Your task to perform on an android device: change timer sound Image 0: 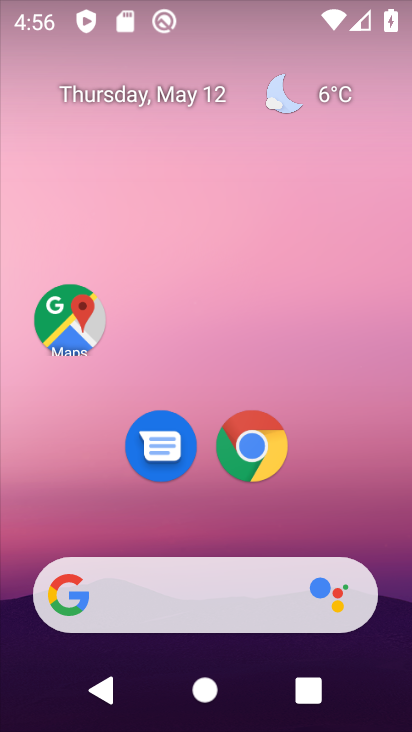
Step 0: drag from (273, 516) to (265, 104)
Your task to perform on an android device: change timer sound Image 1: 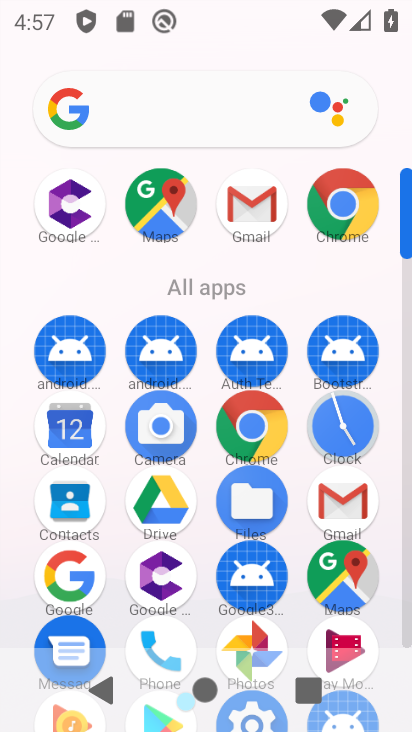
Step 1: click (333, 413)
Your task to perform on an android device: change timer sound Image 2: 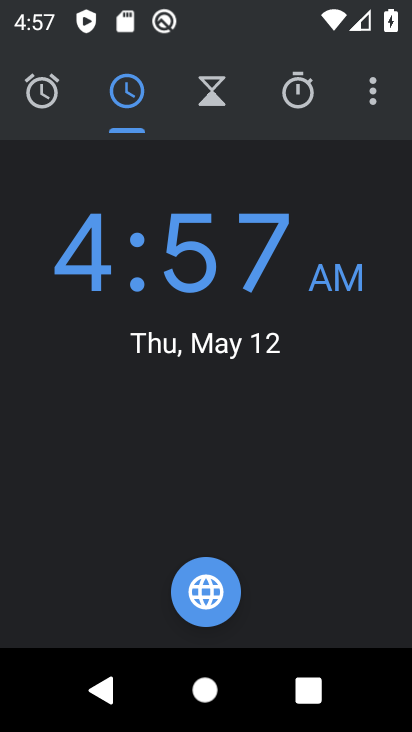
Step 2: click (369, 98)
Your task to perform on an android device: change timer sound Image 3: 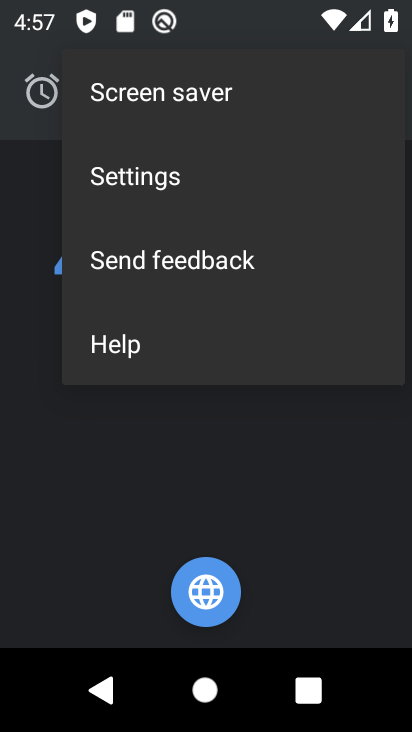
Step 3: click (164, 182)
Your task to perform on an android device: change timer sound Image 4: 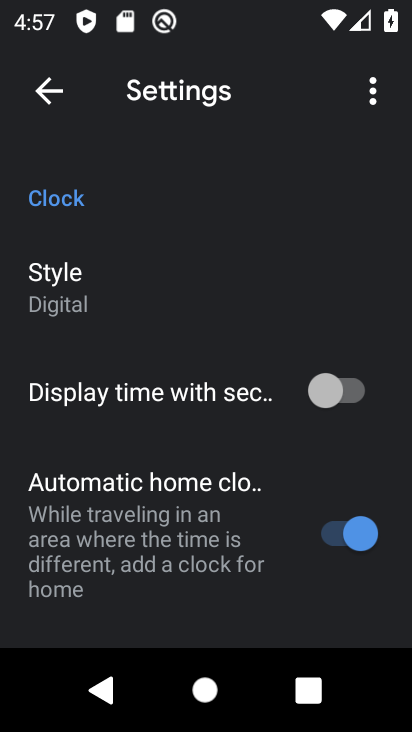
Step 4: drag from (273, 583) to (279, 214)
Your task to perform on an android device: change timer sound Image 5: 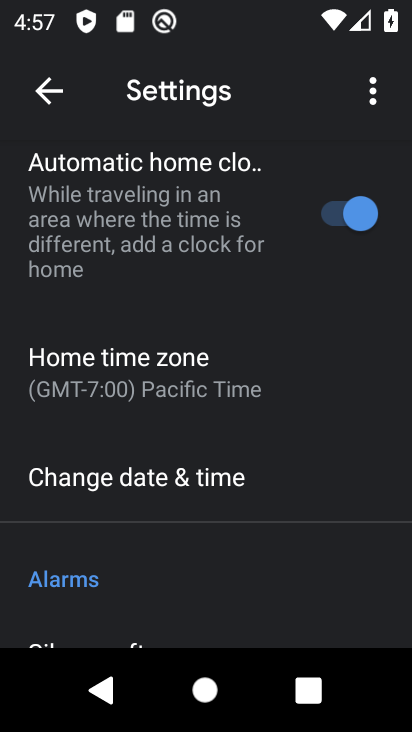
Step 5: drag from (234, 548) to (263, 166)
Your task to perform on an android device: change timer sound Image 6: 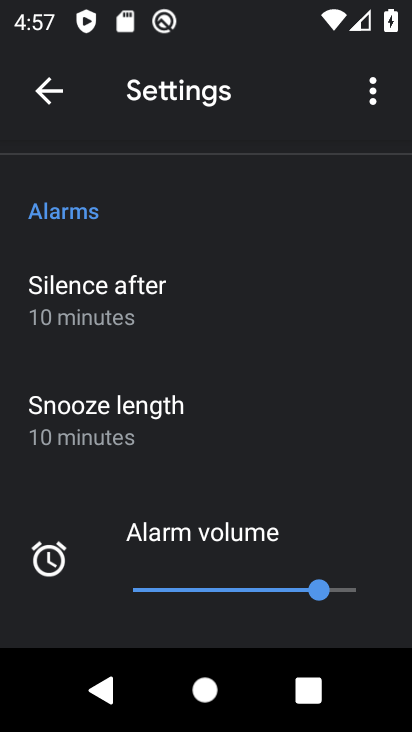
Step 6: drag from (269, 609) to (255, 256)
Your task to perform on an android device: change timer sound Image 7: 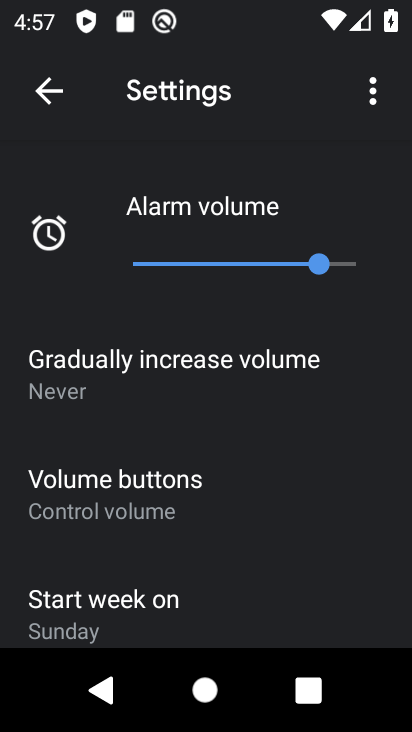
Step 7: drag from (228, 569) to (271, 272)
Your task to perform on an android device: change timer sound Image 8: 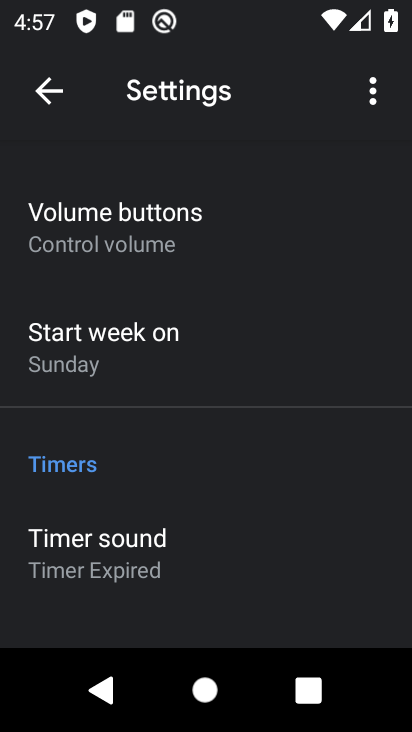
Step 8: click (129, 540)
Your task to perform on an android device: change timer sound Image 9: 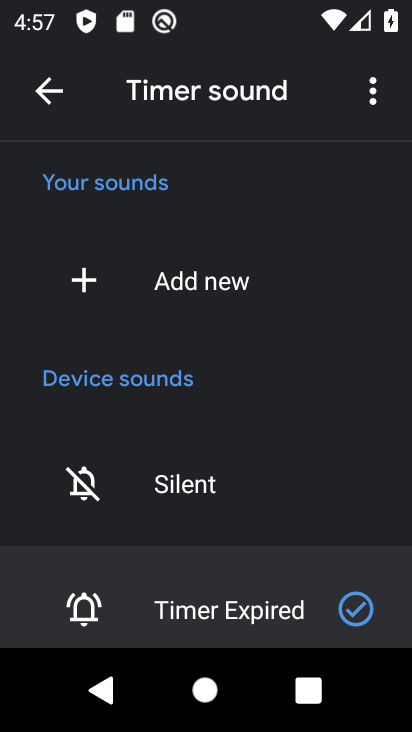
Step 9: drag from (275, 563) to (319, 300)
Your task to perform on an android device: change timer sound Image 10: 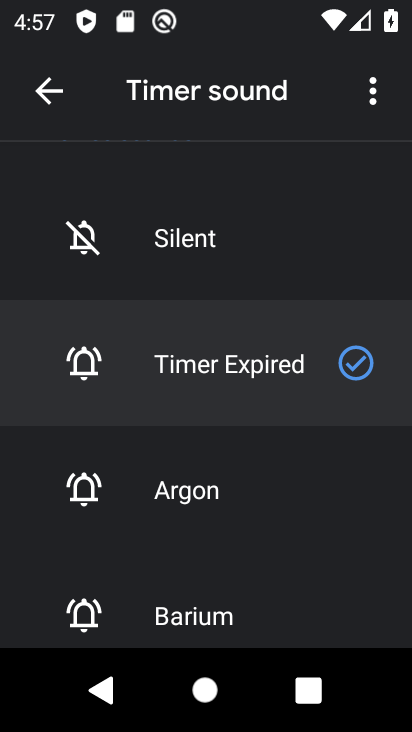
Step 10: click (175, 494)
Your task to perform on an android device: change timer sound Image 11: 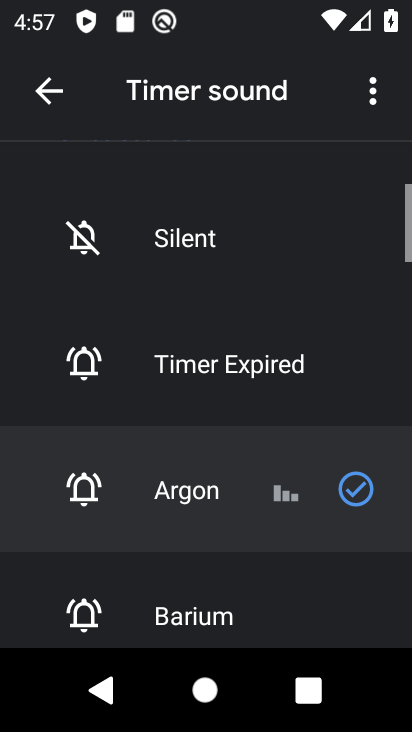
Step 11: click (341, 492)
Your task to perform on an android device: change timer sound Image 12: 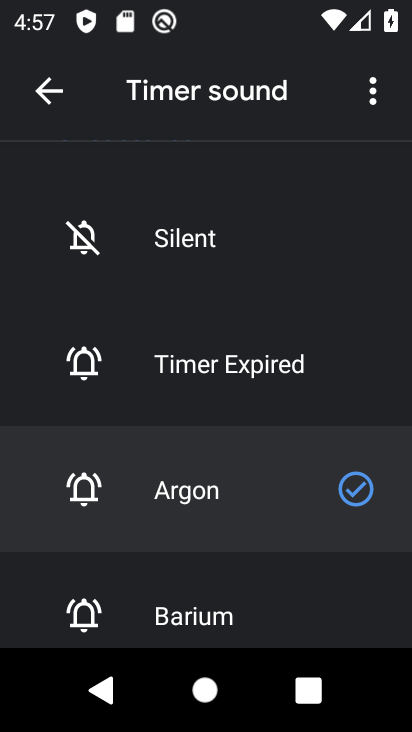
Step 12: task complete